Your task to perform on an android device: choose inbox layout in the gmail app Image 0: 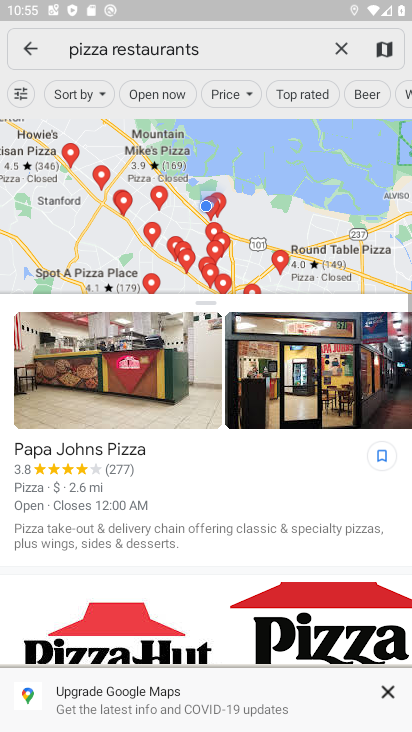
Step 0: press home button
Your task to perform on an android device: choose inbox layout in the gmail app Image 1: 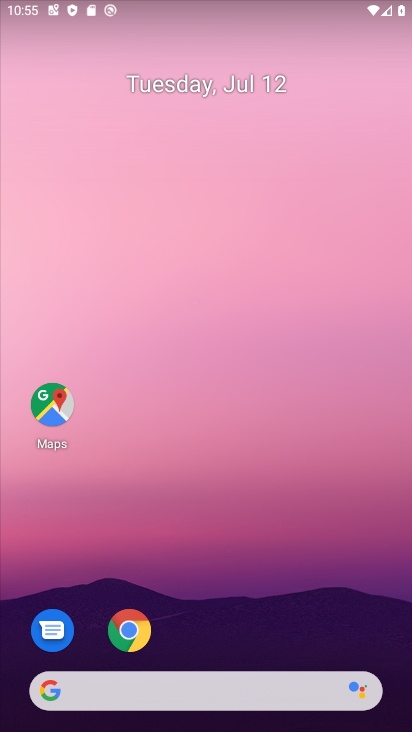
Step 1: drag from (291, 594) to (232, 70)
Your task to perform on an android device: choose inbox layout in the gmail app Image 2: 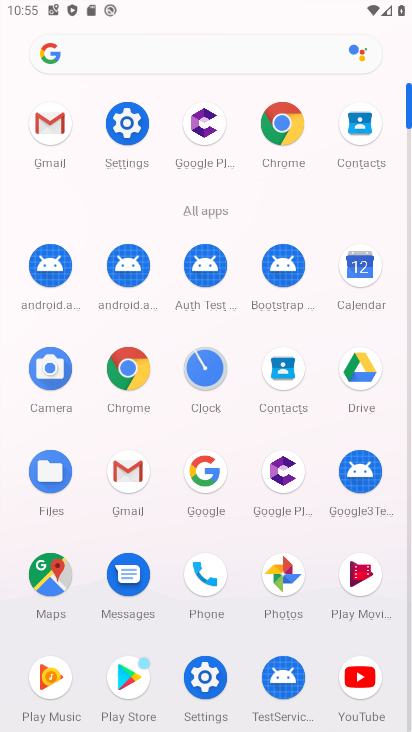
Step 2: click (51, 121)
Your task to perform on an android device: choose inbox layout in the gmail app Image 3: 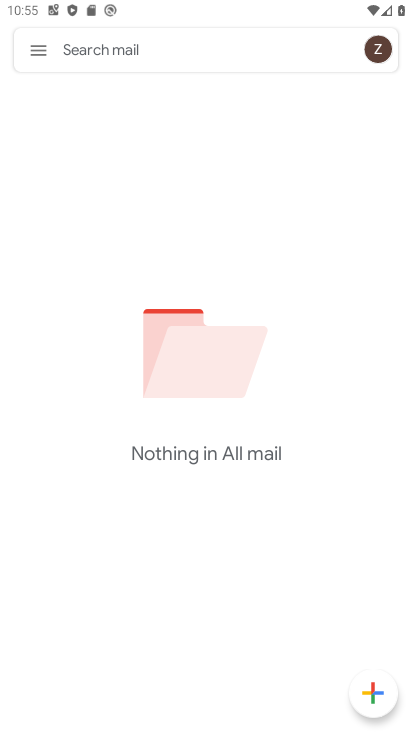
Step 3: click (38, 40)
Your task to perform on an android device: choose inbox layout in the gmail app Image 4: 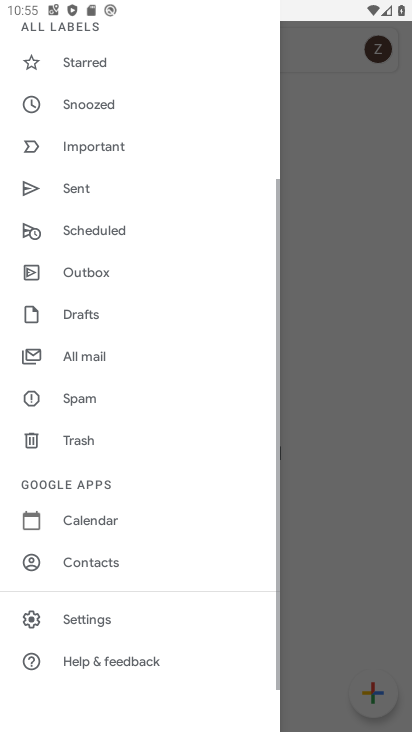
Step 4: click (82, 615)
Your task to perform on an android device: choose inbox layout in the gmail app Image 5: 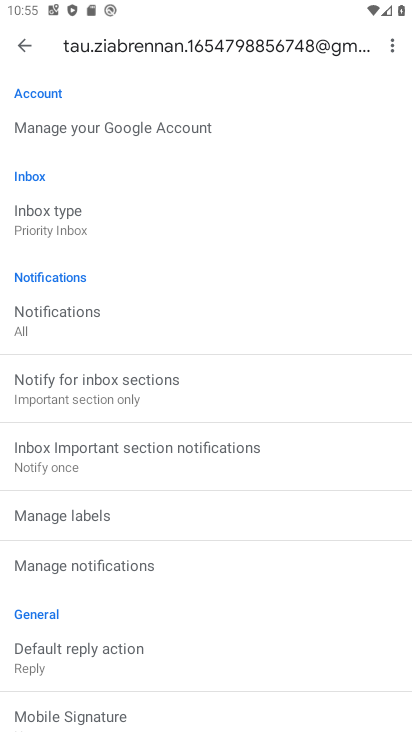
Step 5: click (80, 222)
Your task to perform on an android device: choose inbox layout in the gmail app Image 6: 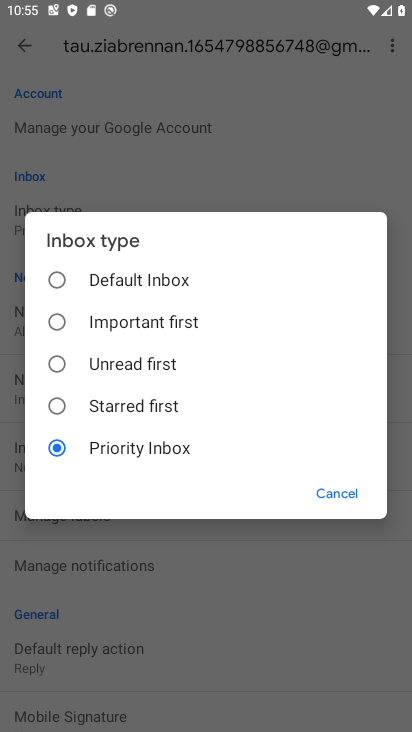
Step 6: task complete